Your task to perform on an android device: check out phone information Image 0: 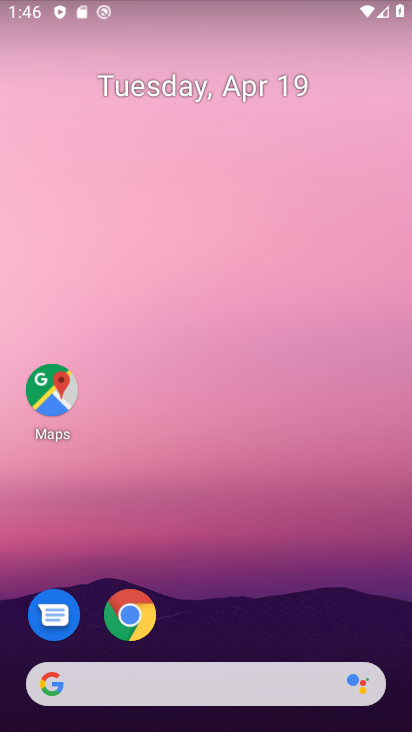
Step 0: click (207, 214)
Your task to perform on an android device: check out phone information Image 1: 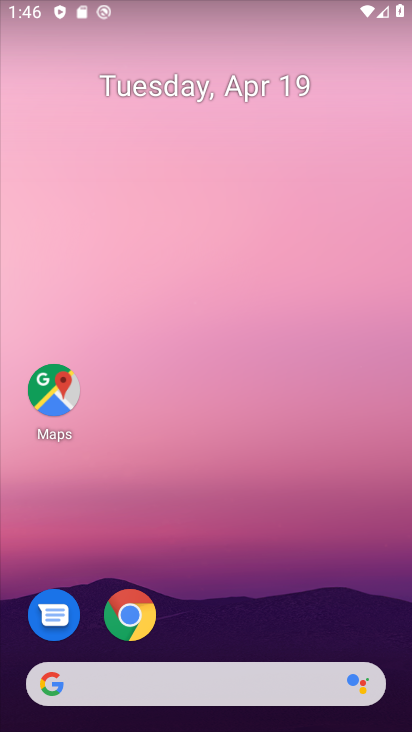
Step 1: drag from (189, 619) to (173, 102)
Your task to perform on an android device: check out phone information Image 2: 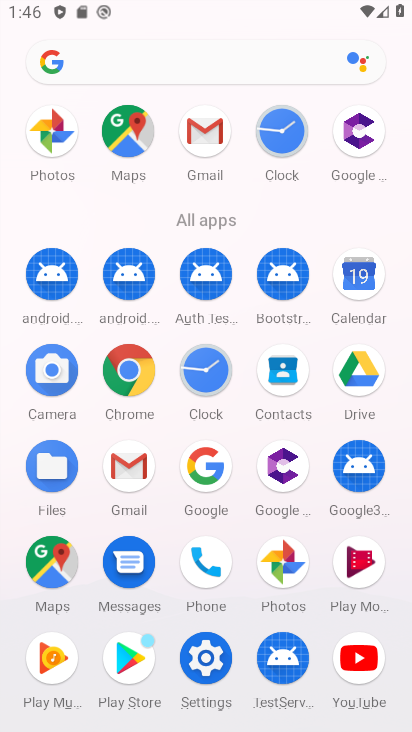
Step 2: drag from (172, 633) to (237, 171)
Your task to perform on an android device: check out phone information Image 3: 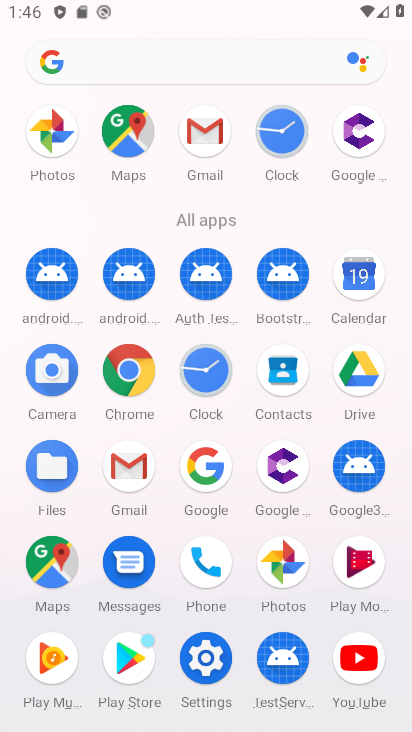
Step 3: drag from (166, 593) to (181, 229)
Your task to perform on an android device: check out phone information Image 4: 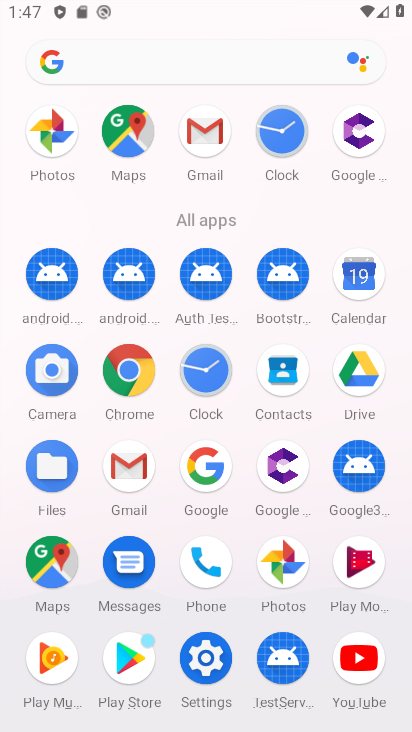
Step 4: click (206, 656)
Your task to perform on an android device: check out phone information Image 5: 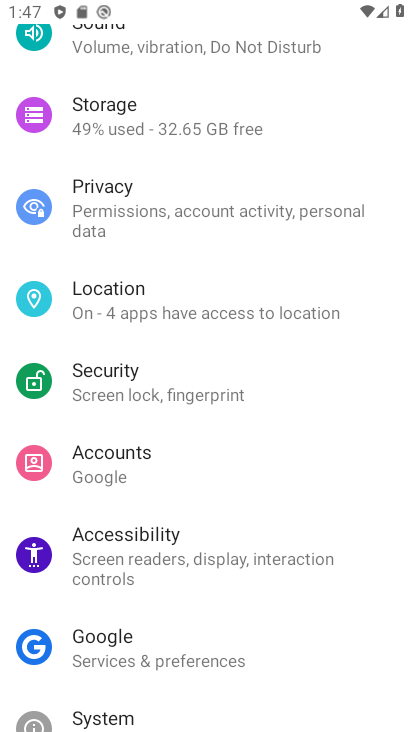
Step 5: drag from (242, 256) to (248, 731)
Your task to perform on an android device: check out phone information Image 6: 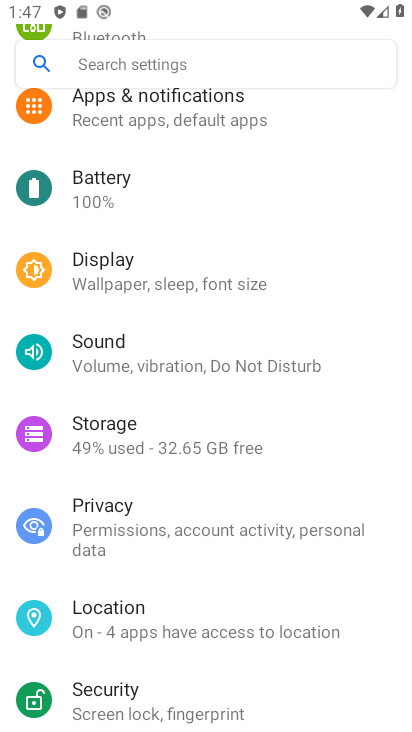
Step 6: drag from (195, 209) to (199, 728)
Your task to perform on an android device: check out phone information Image 7: 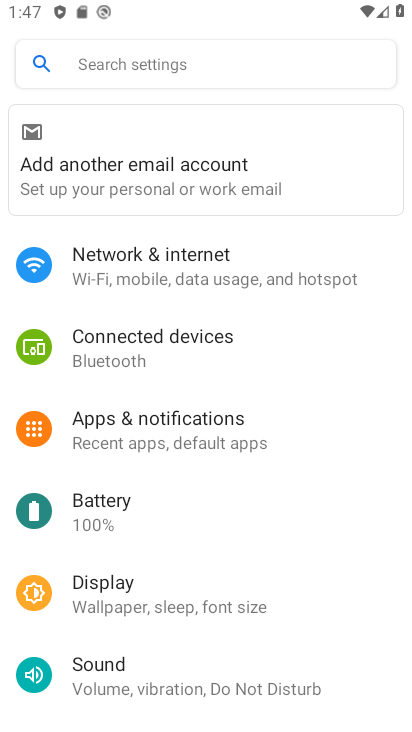
Step 7: drag from (240, 581) to (307, 0)
Your task to perform on an android device: check out phone information Image 8: 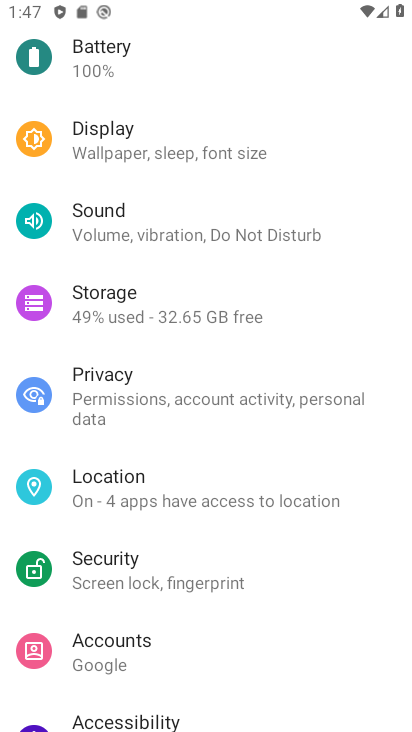
Step 8: drag from (205, 594) to (267, 179)
Your task to perform on an android device: check out phone information Image 9: 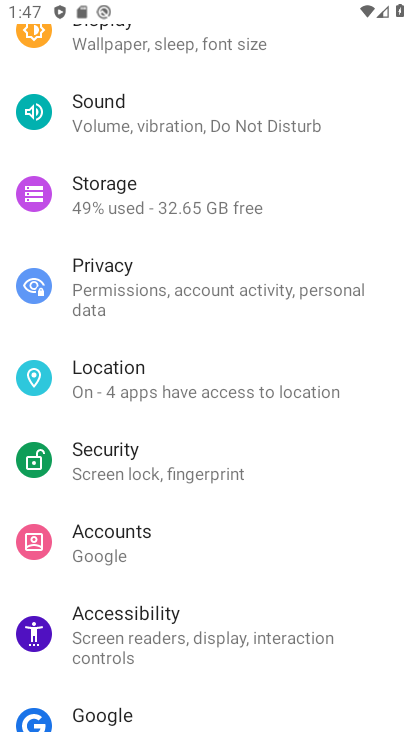
Step 9: drag from (208, 534) to (266, 128)
Your task to perform on an android device: check out phone information Image 10: 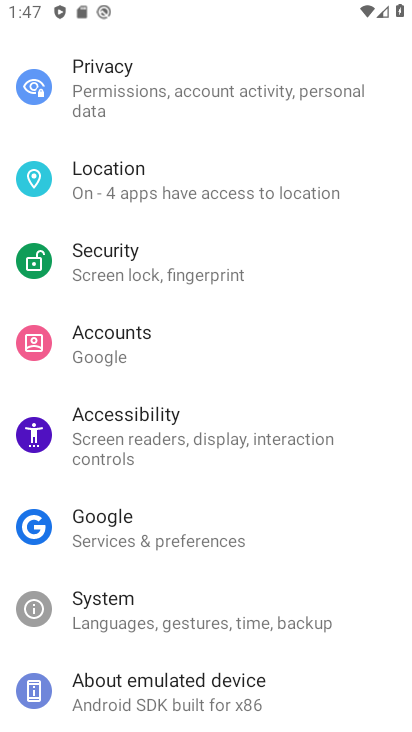
Step 10: drag from (186, 617) to (209, 173)
Your task to perform on an android device: check out phone information Image 11: 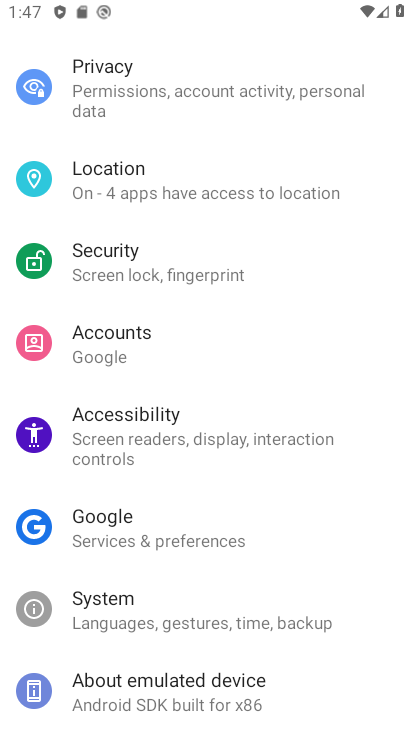
Step 11: click (188, 694)
Your task to perform on an android device: check out phone information Image 12: 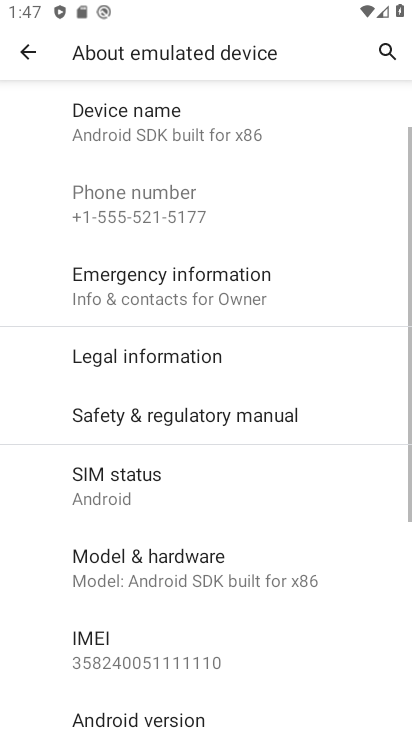
Step 12: task complete